Your task to perform on an android device: uninstall "Reddit" Image 0: 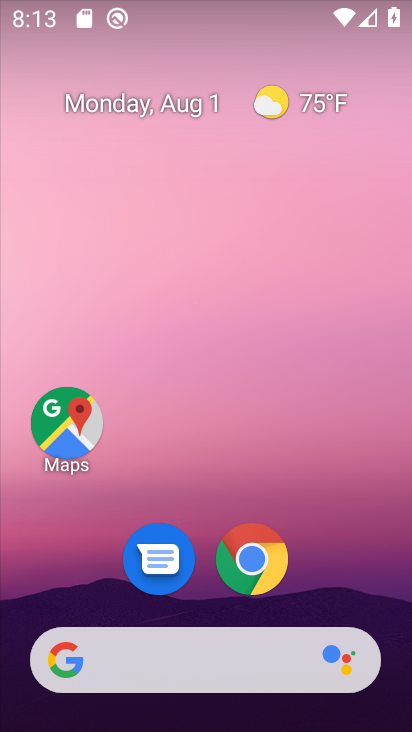
Step 0: drag from (202, 626) to (269, 197)
Your task to perform on an android device: uninstall "Reddit" Image 1: 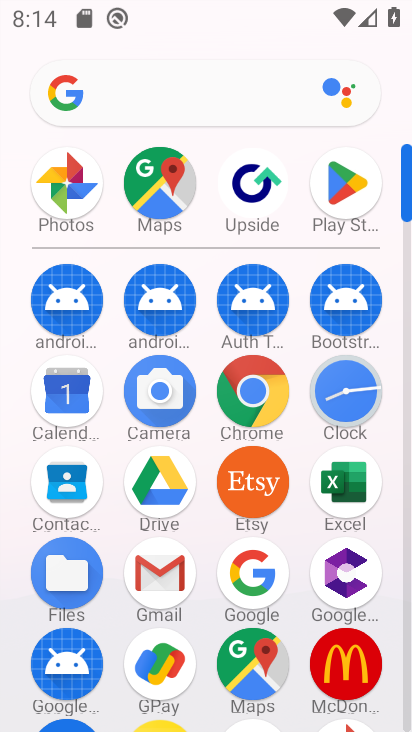
Step 1: click (331, 206)
Your task to perform on an android device: uninstall "Reddit" Image 2: 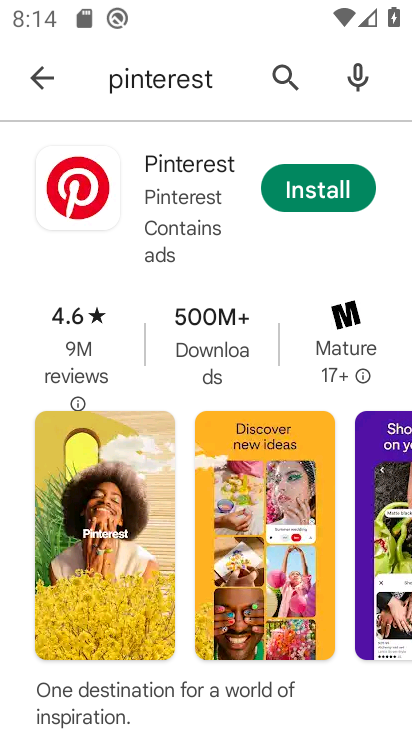
Step 2: click (283, 85)
Your task to perform on an android device: uninstall "Reddit" Image 3: 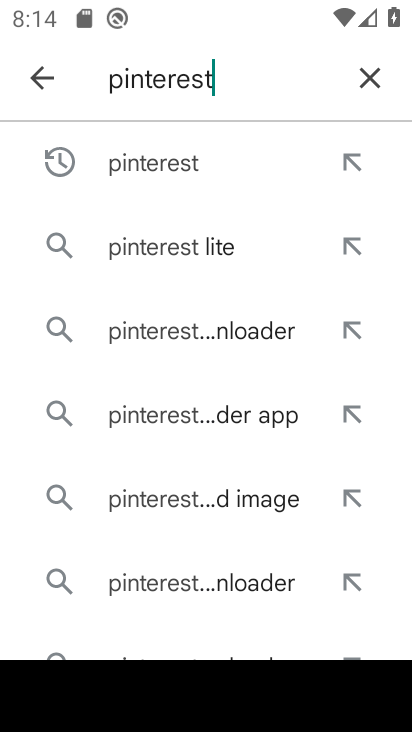
Step 3: click (363, 84)
Your task to perform on an android device: uninstall "Reddit" Image 4: 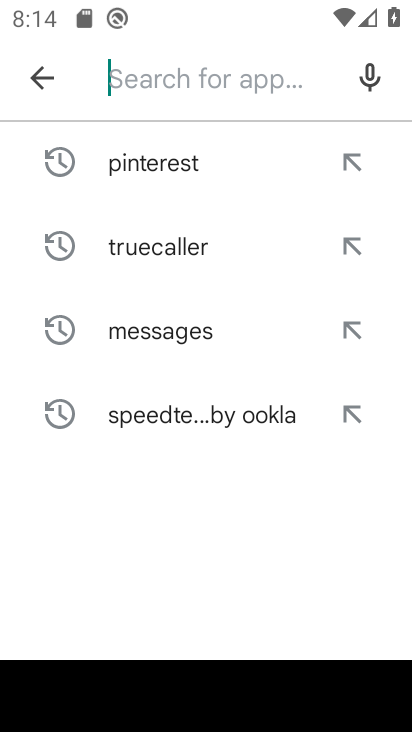
Step 4: type "reddit"
Your task to perform on an android device: uninstall "Reddit" Image 5: 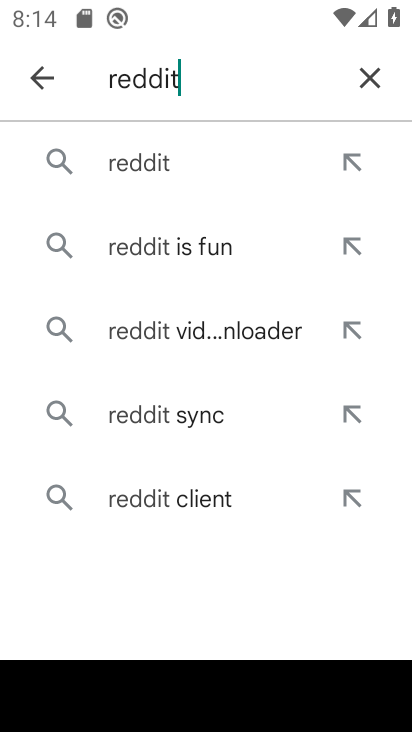
Step 5: click (193, 171)
Your task to perform on an android device: uninstall "Reddit" Image 6: 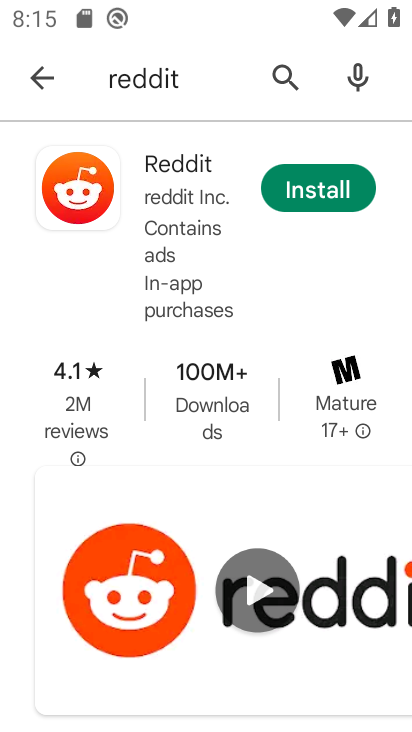
Step 6: task complete